Your task to perform on an android device: Open notification settings Image 0: 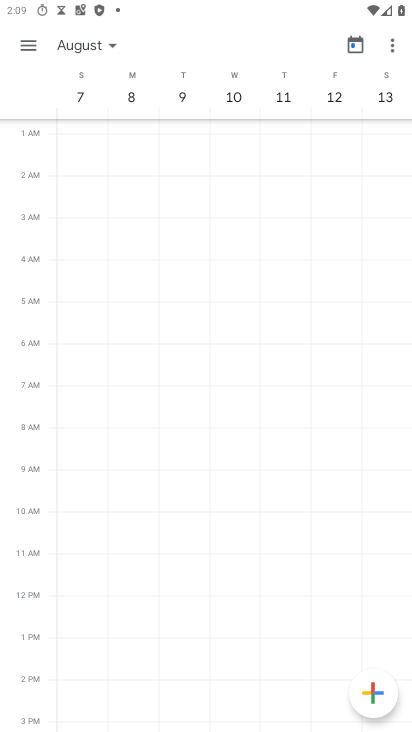
Step 0: press home button
Your task to perform on an android device: Open notification settings Image 1: 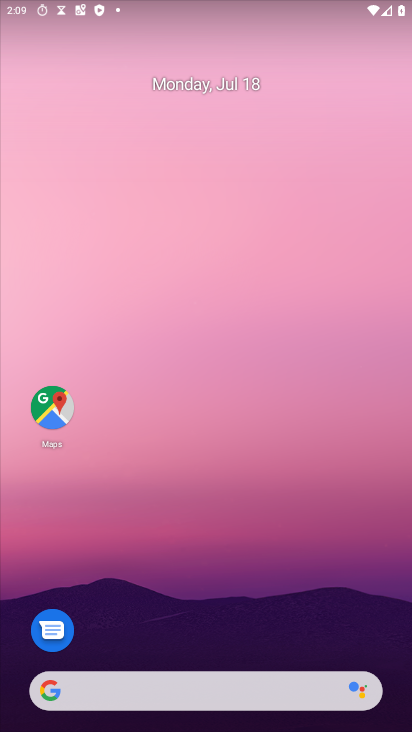
Step 1: drag from (209, 593) to (318, 9)
Your task to perform on an android device: Open notification settings Image 2: 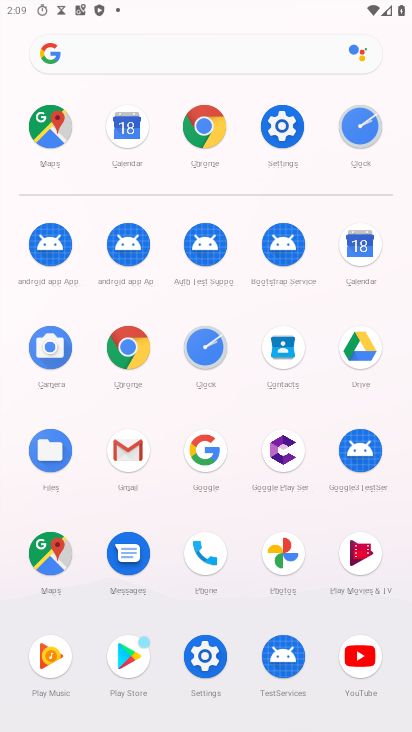
Step 2: click (283, 143)
Your task to perform on an android device: Open notification settings Image 3: 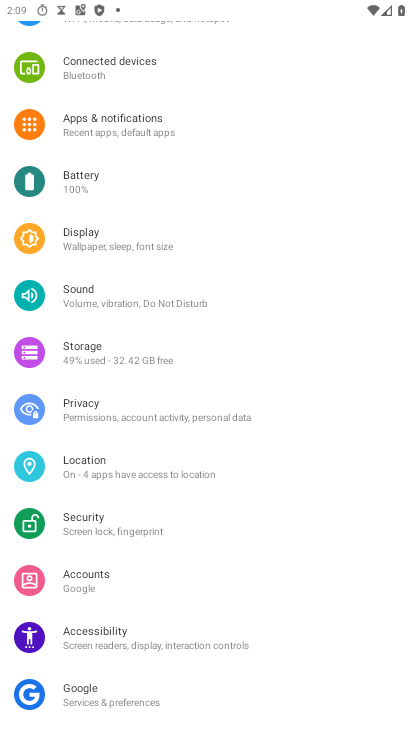
Step 3: click (166, 139)
Your task to perform on an android device: Open notification settings Image 4: 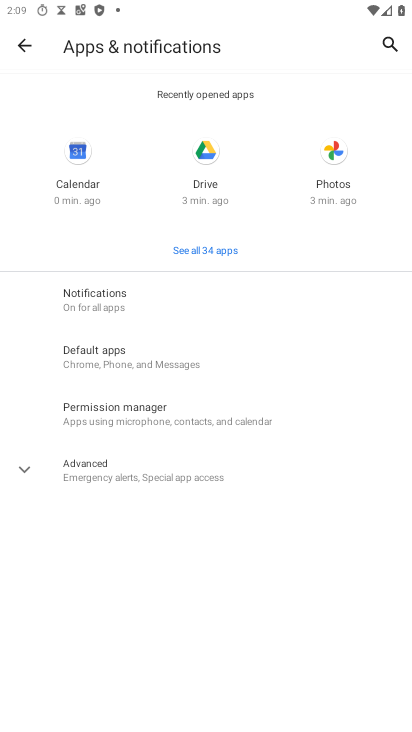
Step 4: task complete